Your task to perform on an android device: add a contact Image 0: 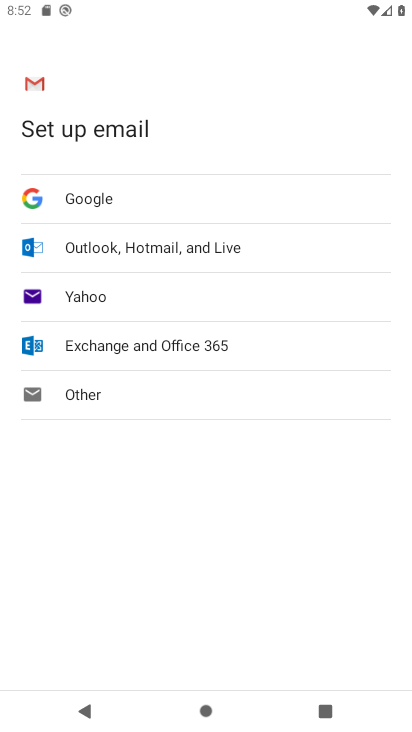
Step 0: press home button
Your task to perform on an android device: add a contact Image 1: 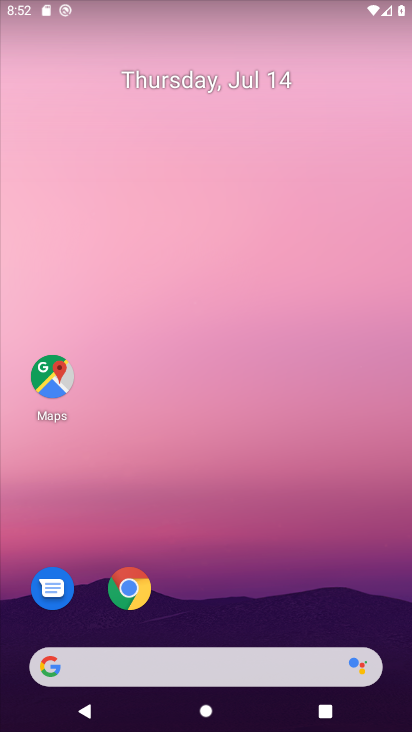
Step 1: drag from (208, 618) to (194, 77)
Your task to perform on an android device: add a contact Image 2: 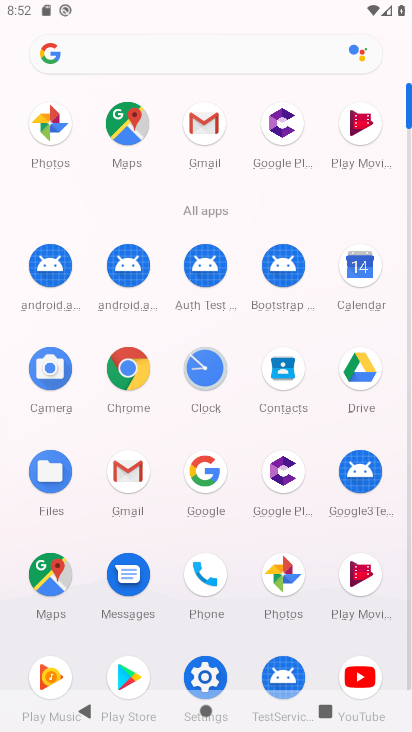
Step 2: click (277, 359)
Your task to perform on an android device: add a contact Image 3: 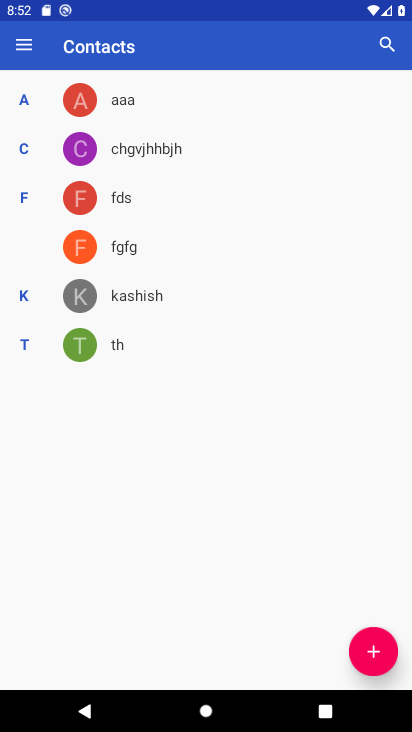
Step 3: click (380, 638)
Your task to perform on an android device: add a contact Image 4: 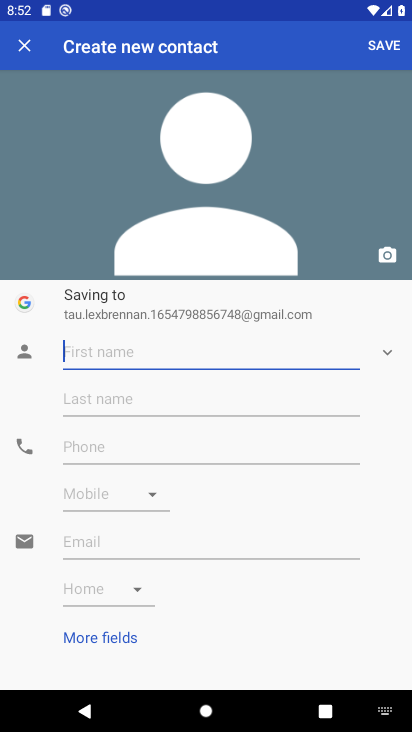
Step 4: type "nnmg"
Your task to perform on an android device: add a contact Image 5: 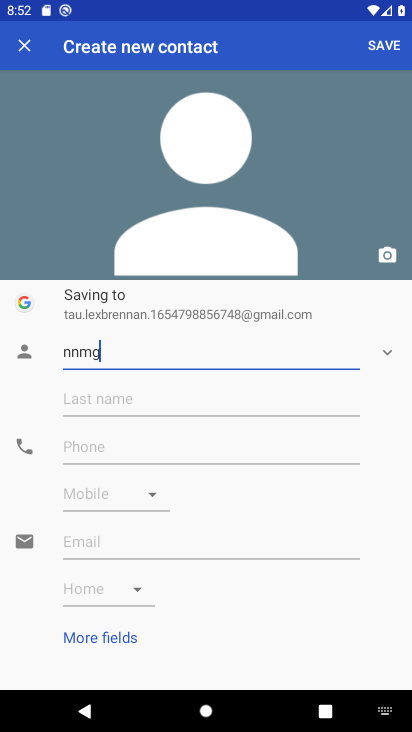
Step 5: click (95, 446)
Your task to perform on an android device: add a contact Image 6: 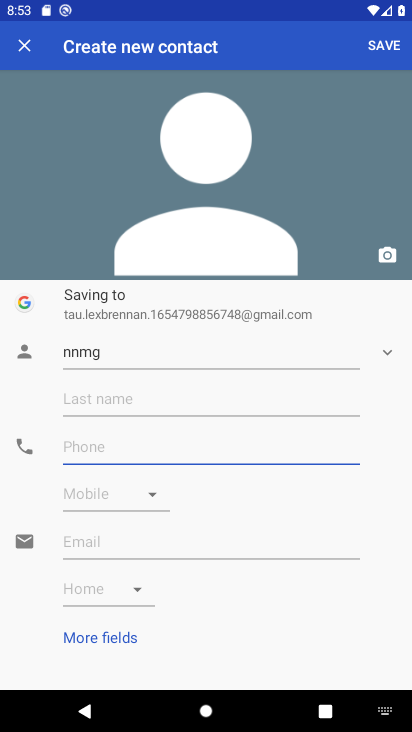
Step 6: type "665538"
Your task to perform on an android device: add a contact Image 7: 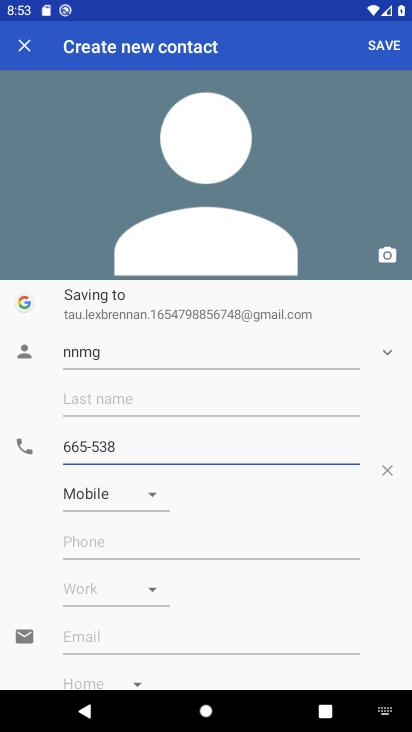
Step 7: click (387, 44)
Your task to perform on an android device: add a contact Image 8: 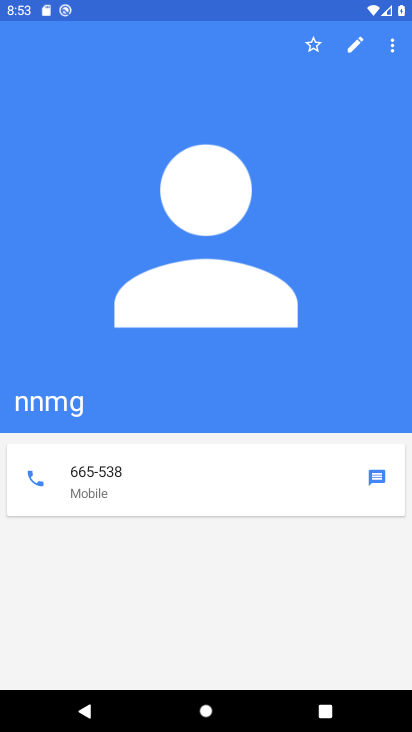
Step 8: task complete